Your task to perform on an android device: Go to eBay Image 0: 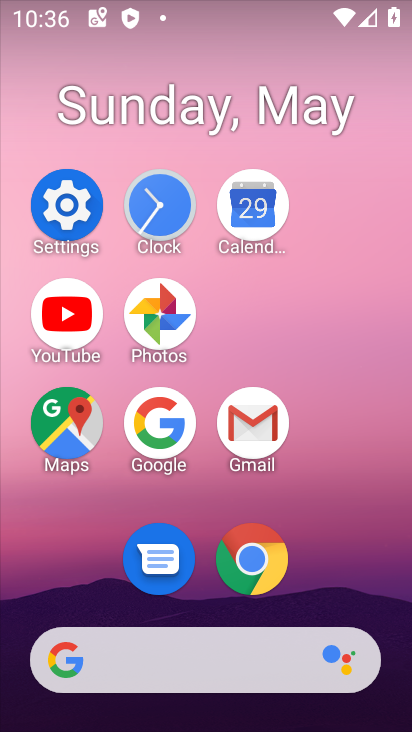
Step 0: click (276, 591)
Your task to perform on an android device: Go to eBay Image 1: 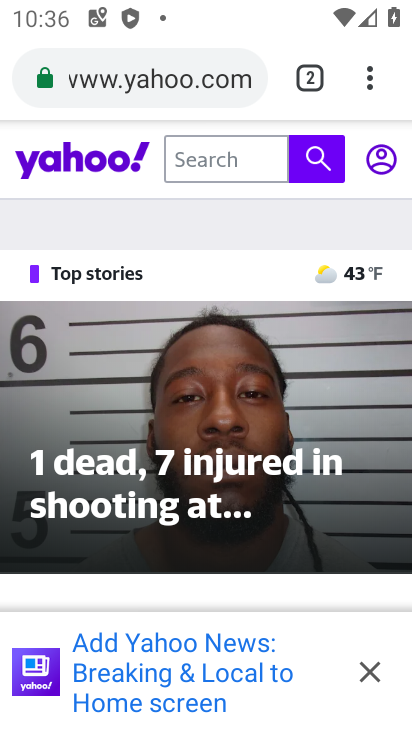
Step 1: click (302, 159)
Your task to perform on an android device: Go to eBay Image 2: 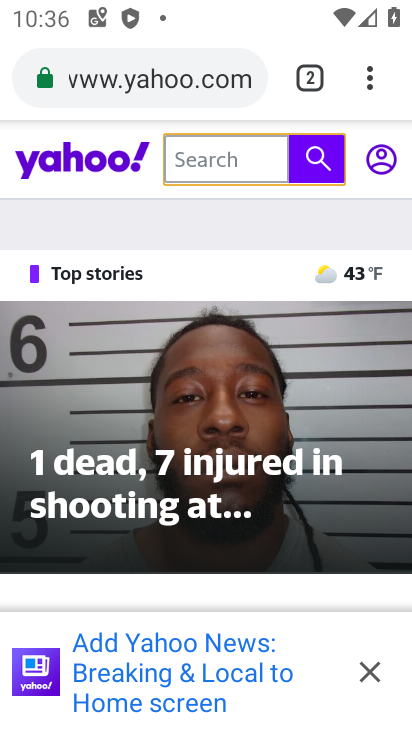
Step 2: click (309, 83)
Your task to perform on an android device: Go to eBay Image 3: 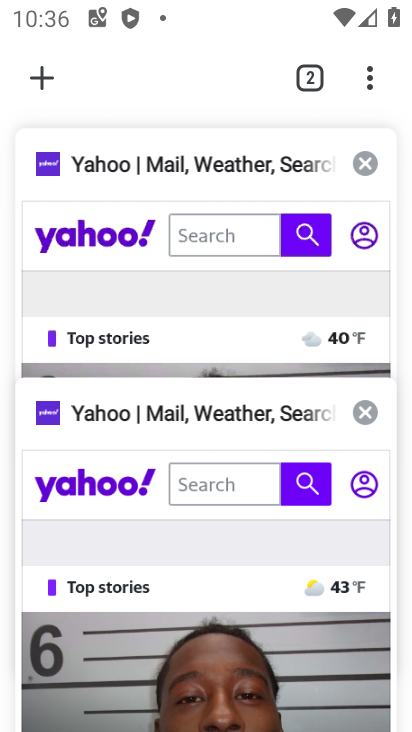
Step 3: click (15, 69)
Your task to perform on an android device: Go to eBay Image 4: 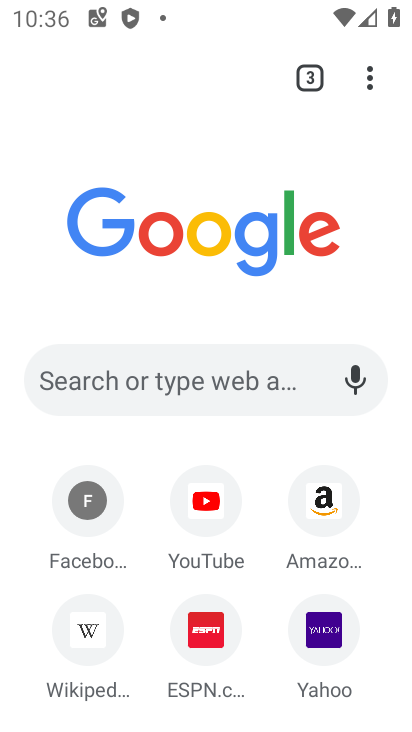
Step 4: click (173, 377)
Your task to perform on an android device: Go to eBay Image 5: 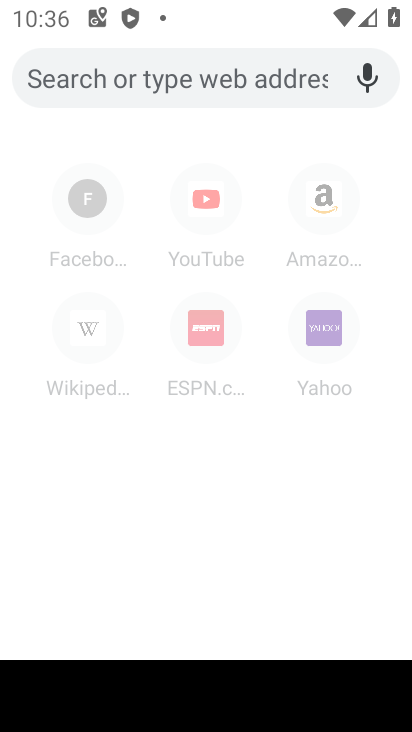
Step 5: type "ebay"
Your task to perform on an android device: Go to eBay Image 6: 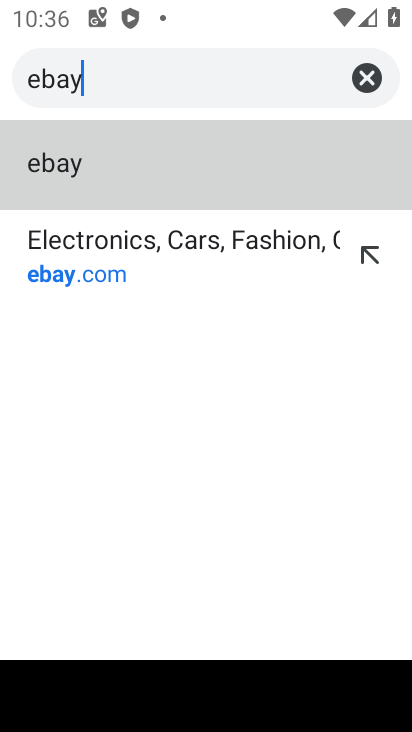
Step 6: click (155, 242)
Your task to perform on an android device: Go to eBay Image 7: 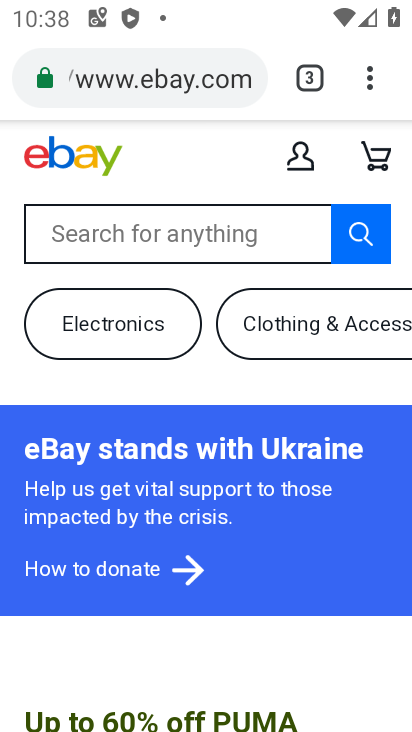
Step 7: task complete